Your task to perform on an android device: Open settings Image 0: 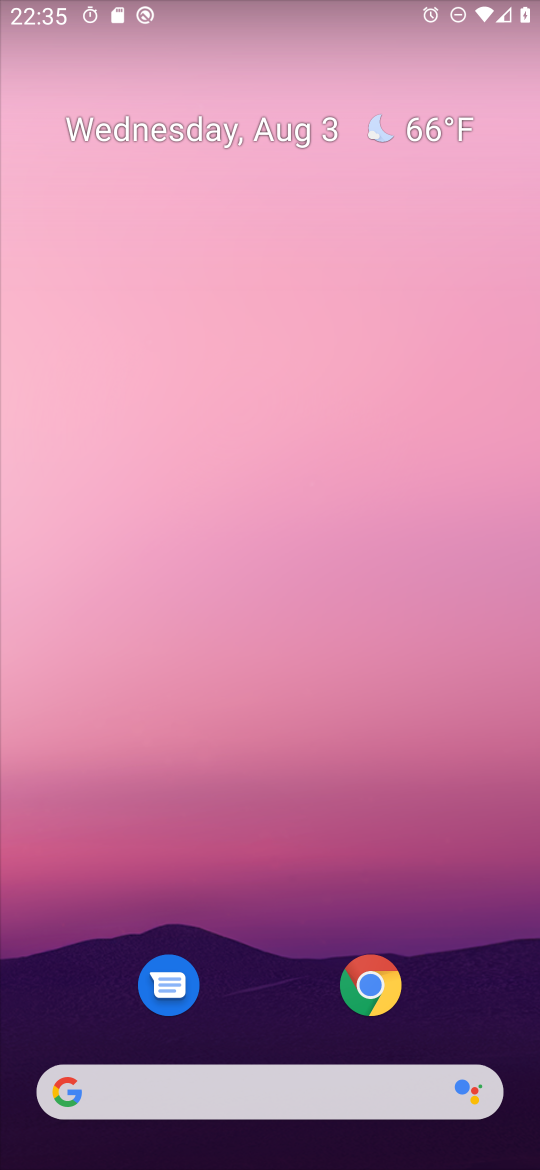
Step 0: drag from (290, 1026) to (296, 369)
Your task to perform on an android device: Open settings Image 1: 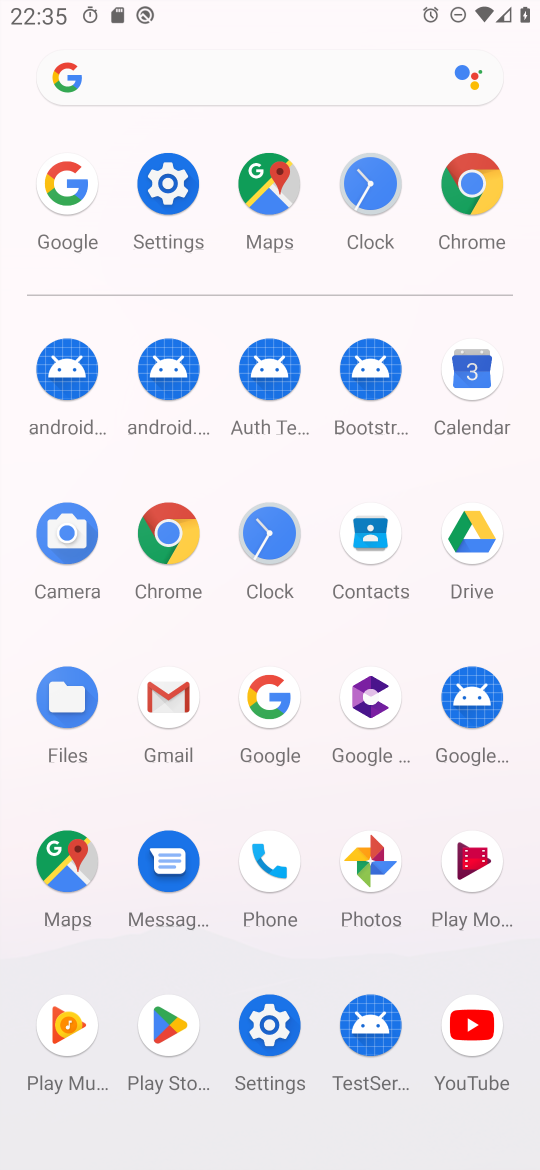
Step 1: click (172, 206)
Your task to perform on an android device: Open settings Image 2: 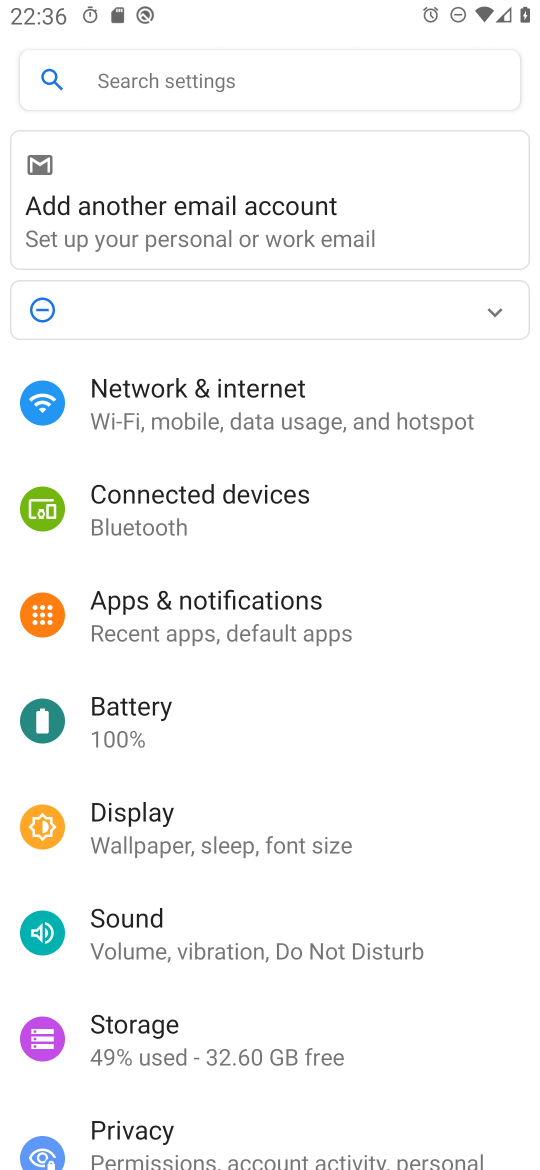
Step 2: task complete